Your task to perform on an android device: Open wifi settings Image 0: 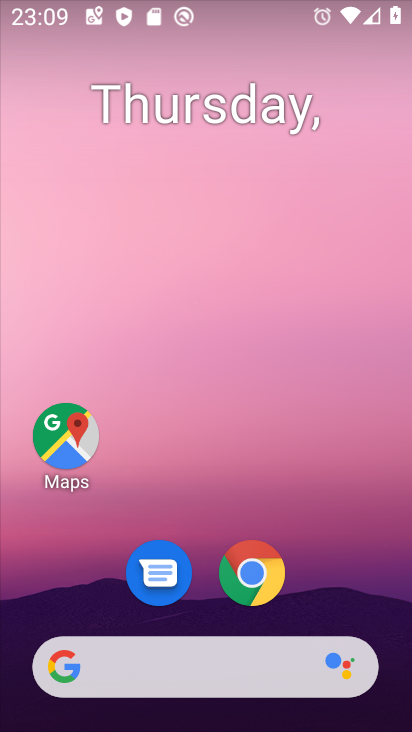
Step 0: drag from (325, 542) to (232, 148)
Your task to perform on an android device: Open wifi settings Image 1: 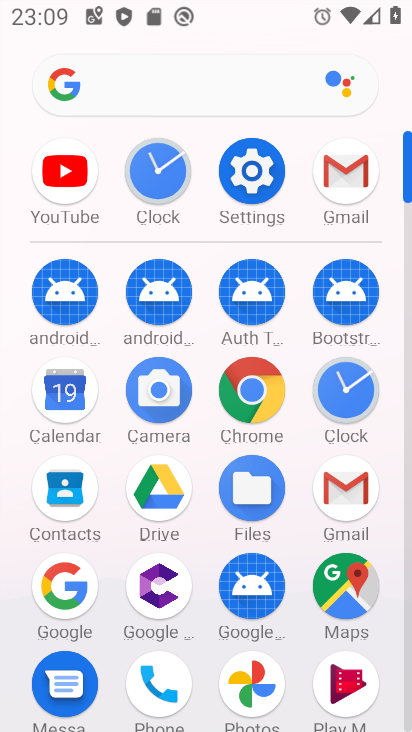
Step 1: click (241, 165)
Your task to perform on an android device: Open wifi settings Image 2: 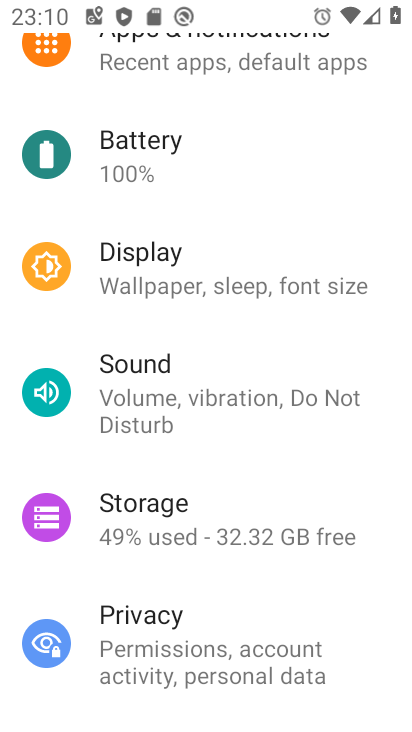
Step 2: drag from (196, 171) to (166, 657)
Your task to perform on an android device: Open wifi settings Image 3: 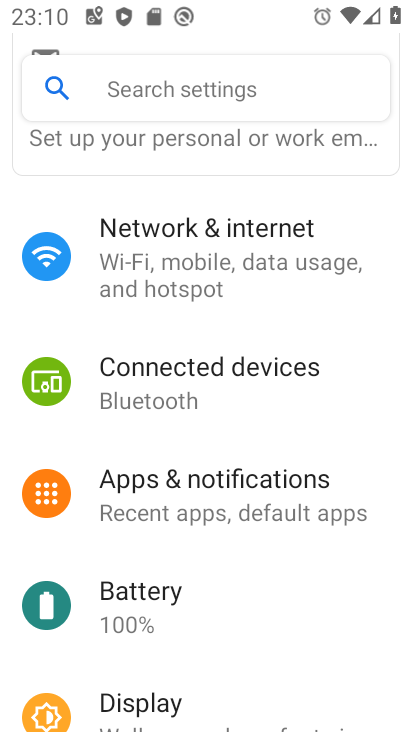
Step 3: click (164, 228)
Your task to perform on an android device: Open wifi settings Image 4: 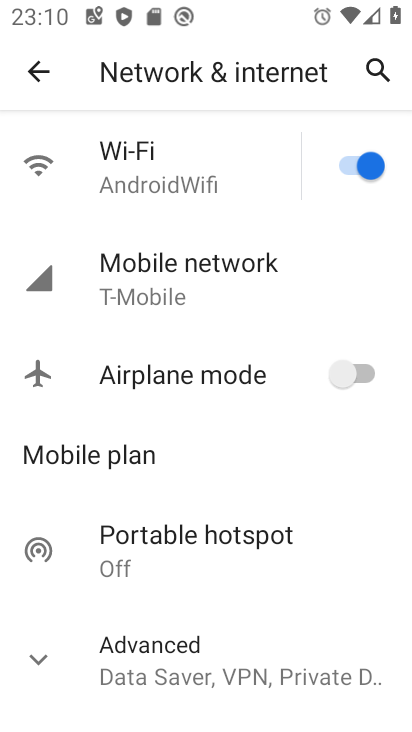
Step 4: click (157, 176)
Your task to perform on an android device: Open wifi settings Image 5: 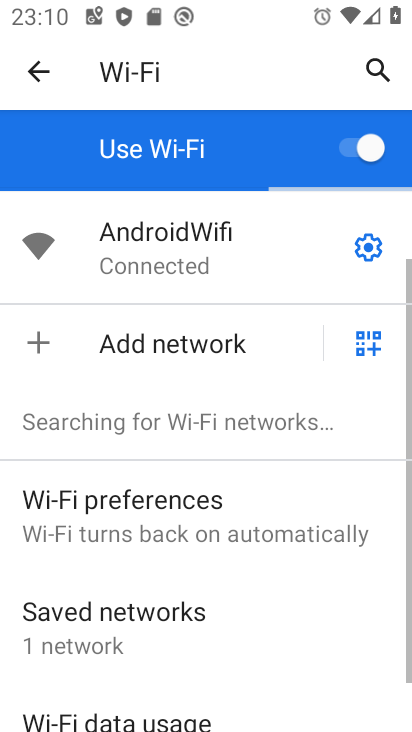
Step 5: click (370, 250)
Your task to perform on an android device: Open wifi settings Image 6: 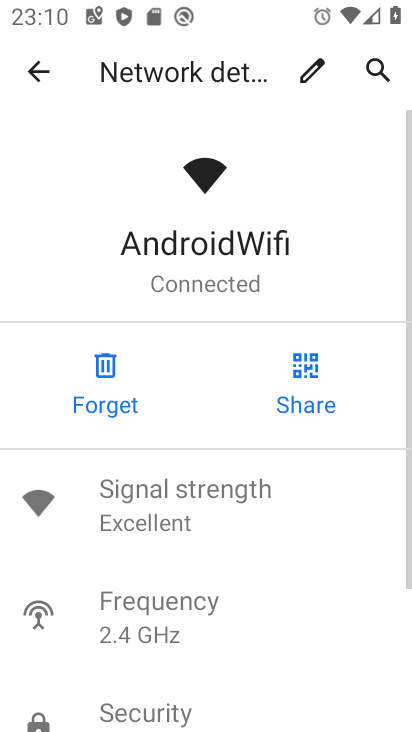
Step 6: task complete